Your task to perform on an android device: turn vacation reply on in the gmail app Image 0: 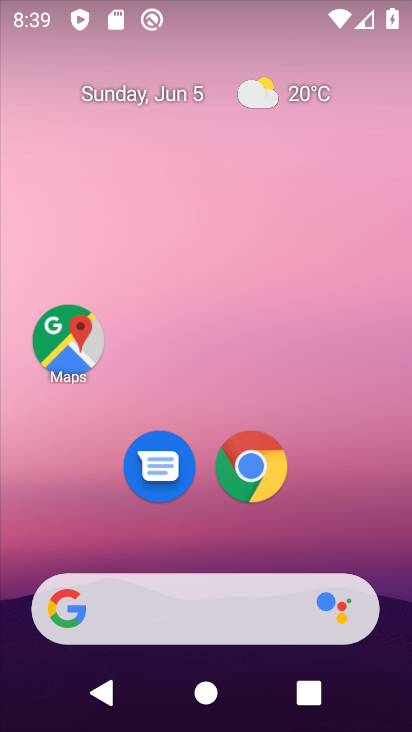
Step 0: drag from (207, 543) to (286, 11)
Your task to perform on an android device: turn vacation reply on in the gmail app Image 1: 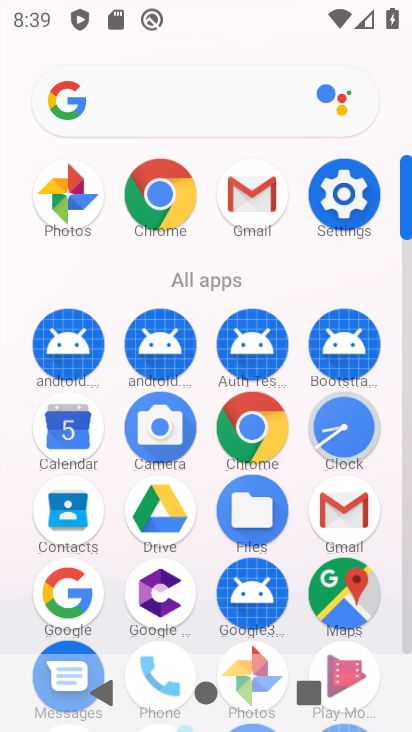
Step 1: click (261, 193)
Your task to perform on an android device: turn vacation reply on in the gmail app Image 2: 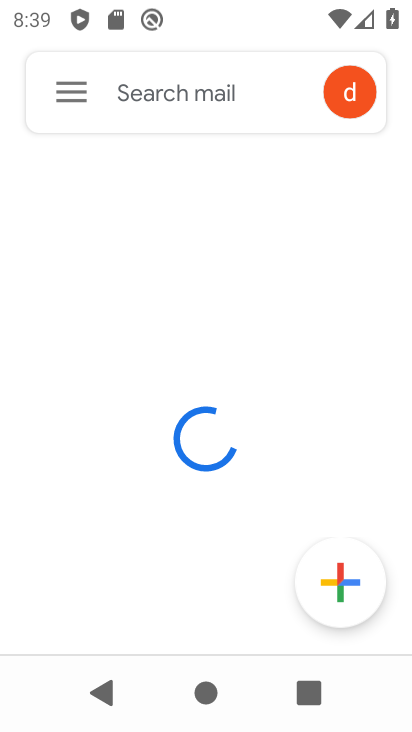
Step 2: click (64, 90)
Your task to perform on an android device: turn vacation reply on in the gmail app Image 3: 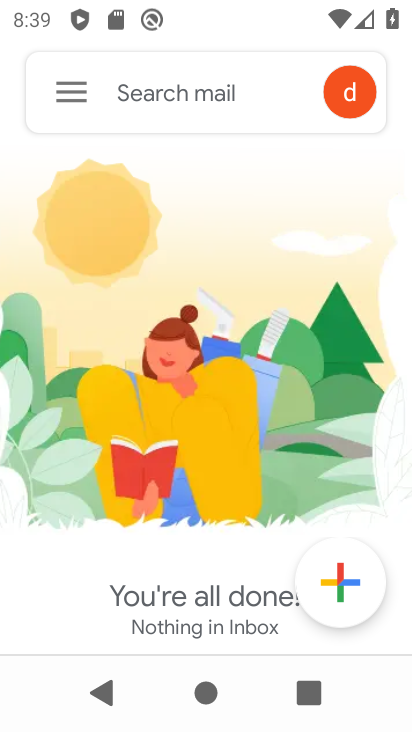
Step 3: click (66, 94)
Your task to perform on an android device: turn vacation reply on in the gmail app Image 4: 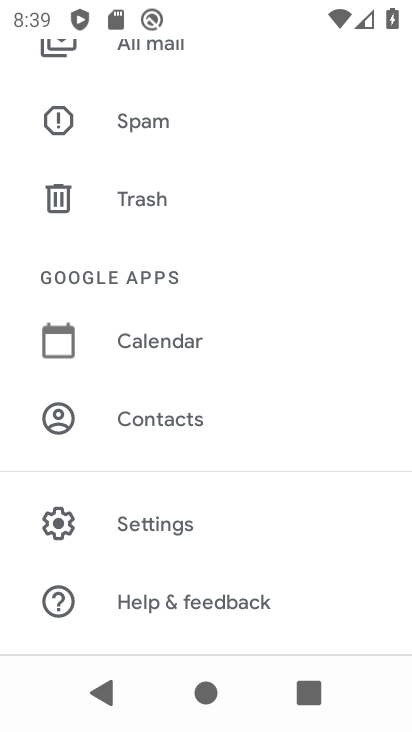
Step 4: click (169, 530)
Your task to perform on an android device: turn vacation reply on in the gmail app Image 5: 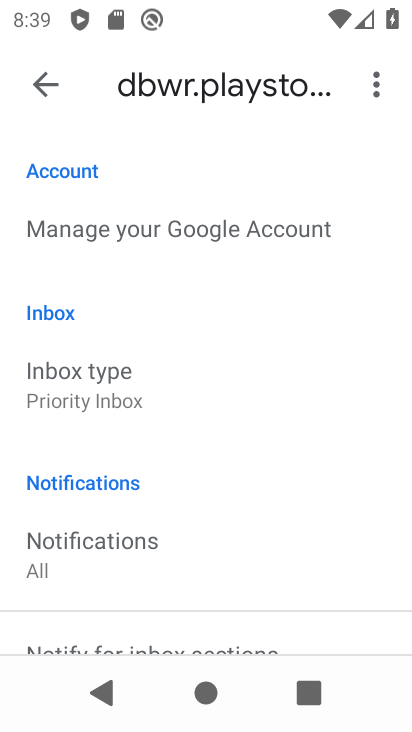
Step 5: drag from (131, 568) to (169, 386)
Your task to perform on an android device: turn vacation reply on in the gmail app Image 6: 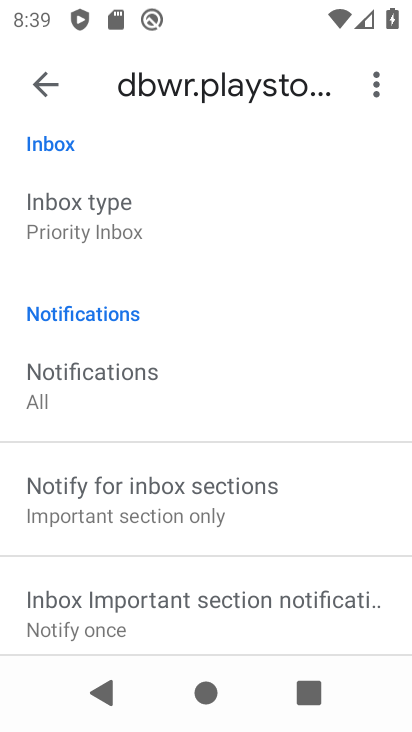
Step 6: drag from (177, 566) to (177, 383)
Your task to perform on an android device: turn vacation reply on in the gmail app Image 7: 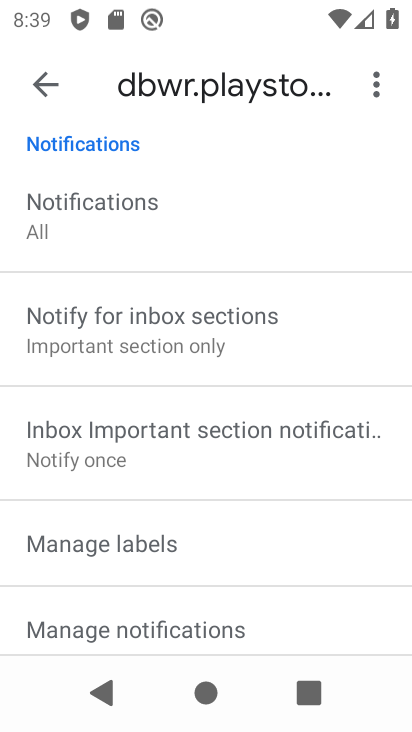
Step 7: drag from (151, 582) to (177, 258)
Your task to perform on an android device: turn vacation reply on in the gmail app Image 8: 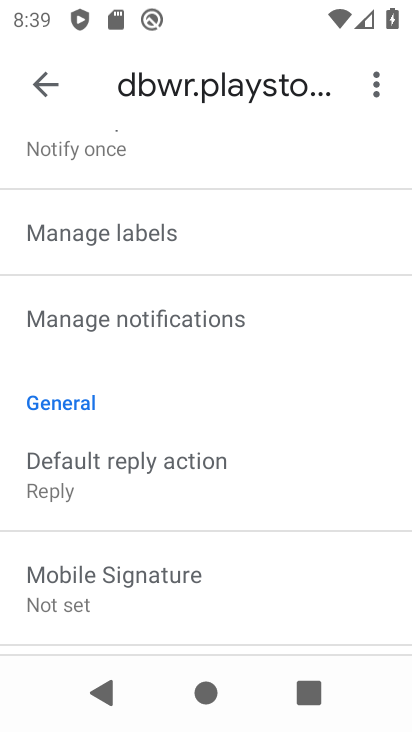
Step 8: drag from (173, 585) to (176, 322)
Your task to perform on an android device: turn vacation reply on in the gmail app Image 9: 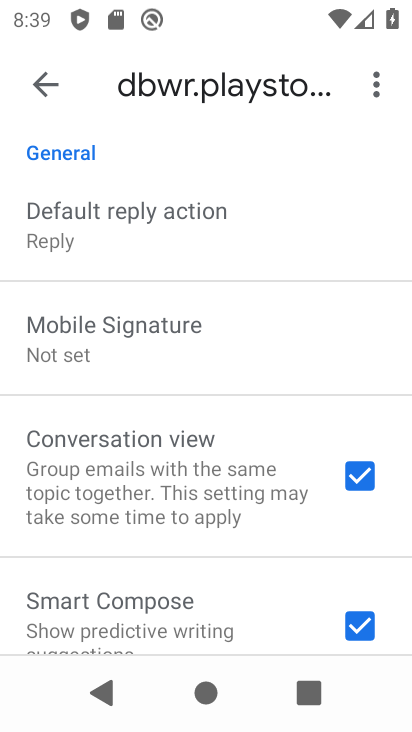
Step 9: drag from (188, 550) to (220, 315)
Your task to perform on an android device: turn vacation reply on in the gmail app Image 10: 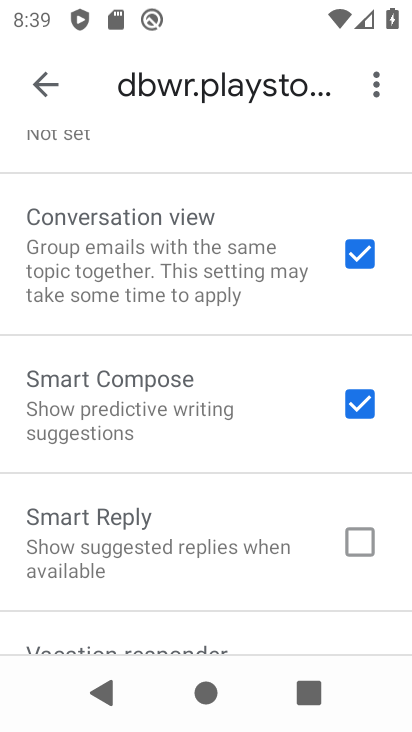
Step 10: drag from (234, 589) to (278, 361)
Your task to perform on an android device: turn vacation reply on in the gmail app Image 11: 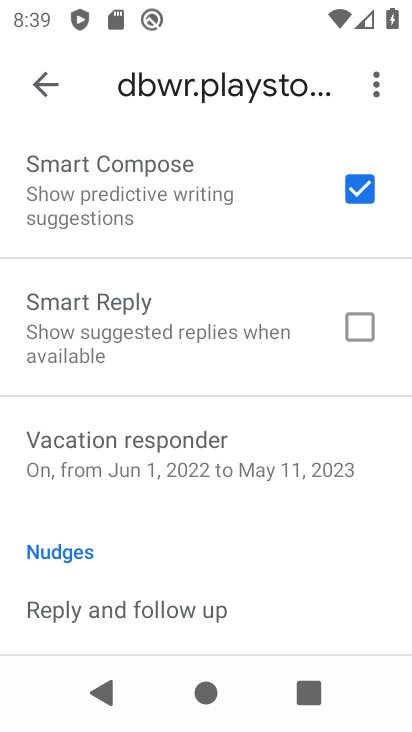
Step 11: click (192, 450)
Your task to perform on an android device: turn vacation reply on in the gmail app Image 12: 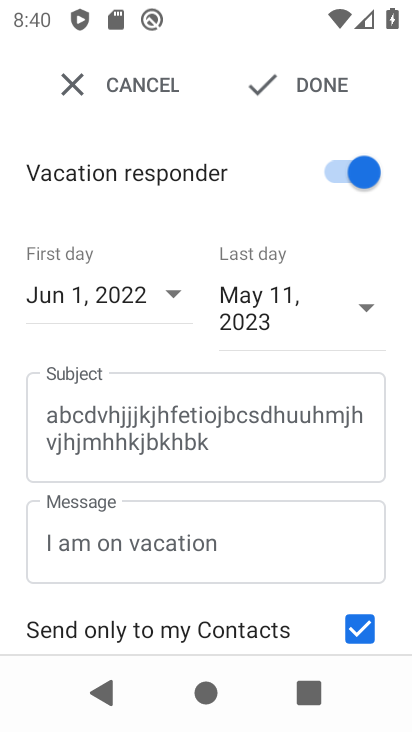
Step 12: task complete